Your task to perform on an android device: toggle data saver in the chrome app Image 0: 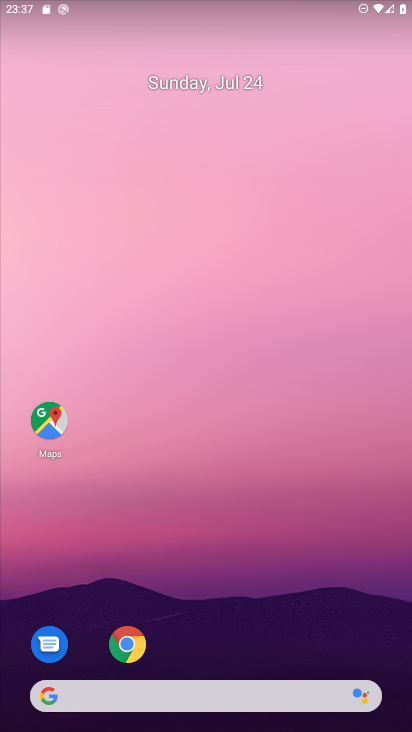
Step 0: click (128, 642)
Your task to perform on an android device: toggle data saver in the chrome app Image 1: 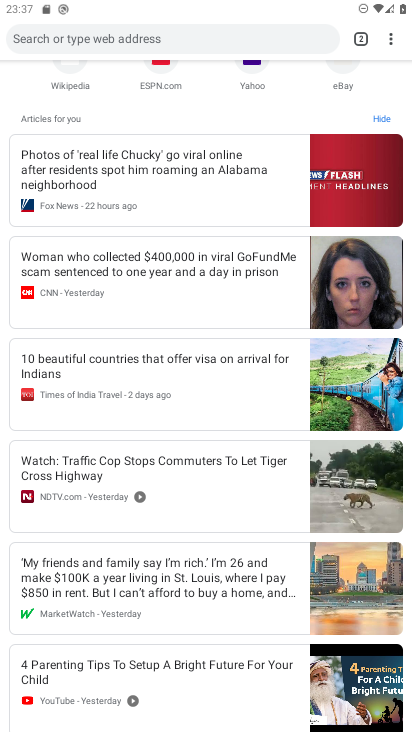
Step 1: click (389, 42)
Your task to perform on an android device: toggle data saver in the chrome app Image 2: 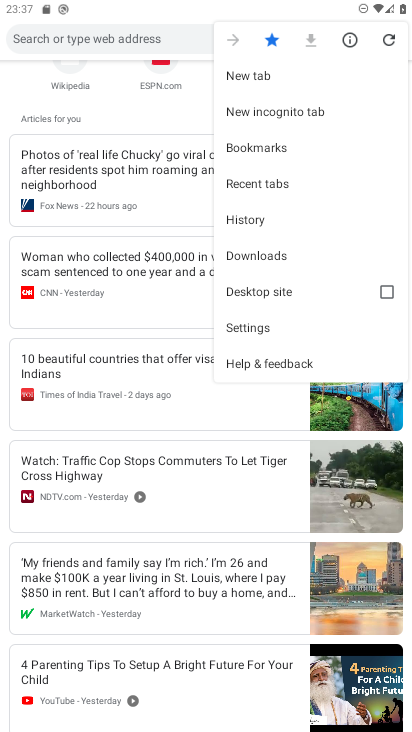
Step 2: click (250, 324)
Your task to perform on an android device: toggle data saver in the chrome app Image 3: 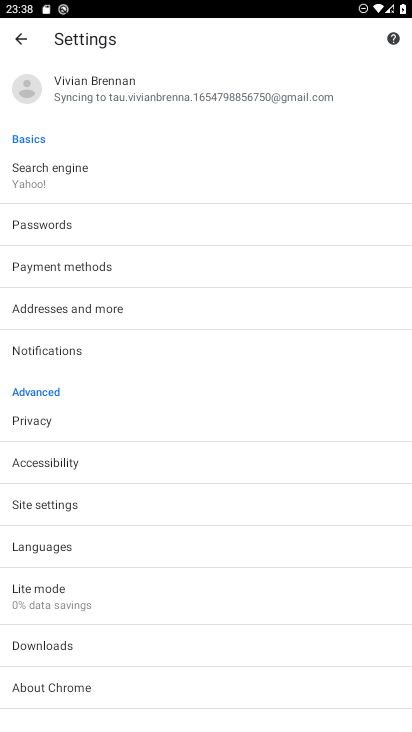
Step 3: click (32, 593)
Your task to perform on an android device: toggle data saver in the chrome app Image 4: 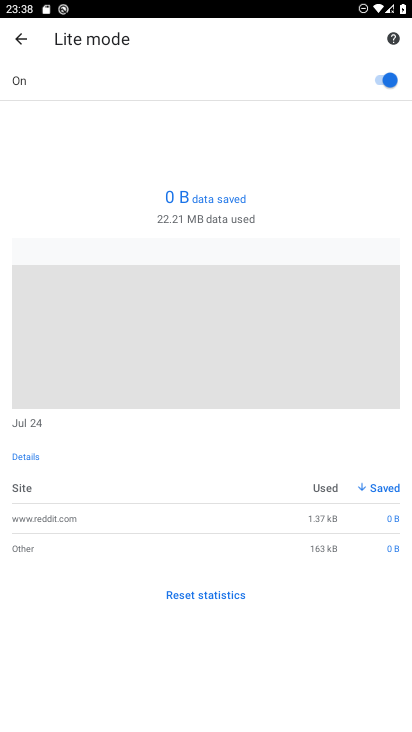
Step 4: click (377, 79)
Your task to perform on an android device: toggle data saver in the chrome app Image 5: 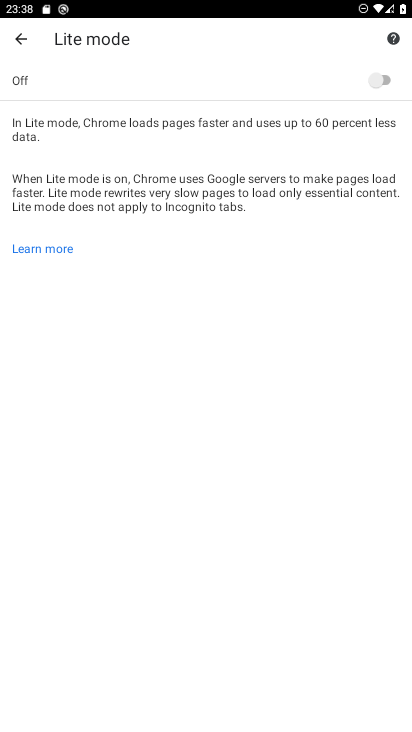
Step 5: task complete